Your task to perform on an android device: delete browsing data in the chrome app Image 0: 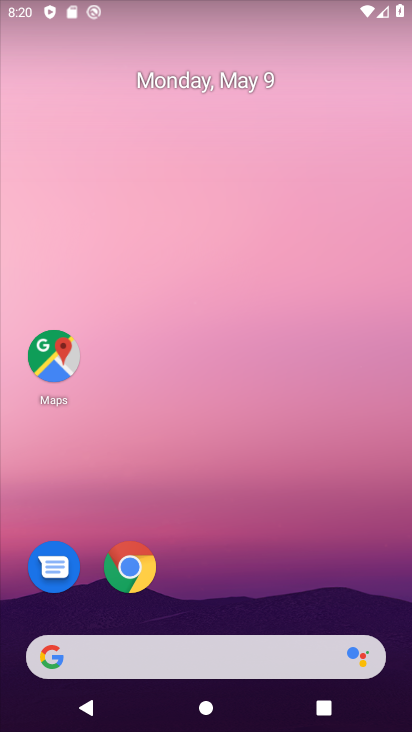
Step 0: drag from (201, 508) to (166, 65)
Your task to perform on an android device: delete browsing data in the chrome app Image 1: 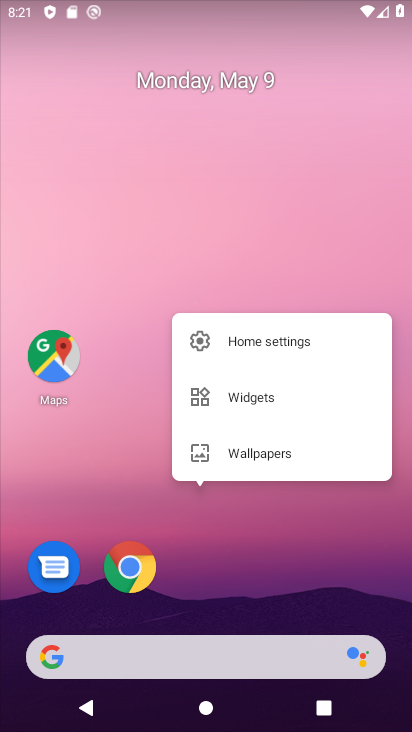
Step 1: drag from (207, 563) to (223, 82)
Your task to perform on an android device: delete browsing data in the chrome app Image 2: 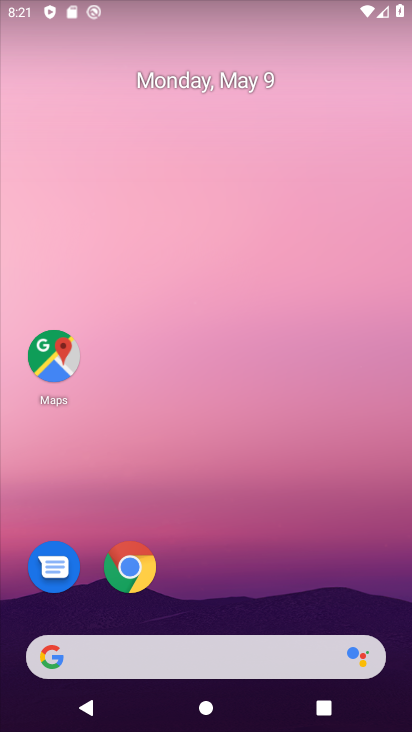
Step 2: drag from (252, 577) to (245, 119)
Your task to perform on an android device: delete browsing data in the chrome app Image 3: 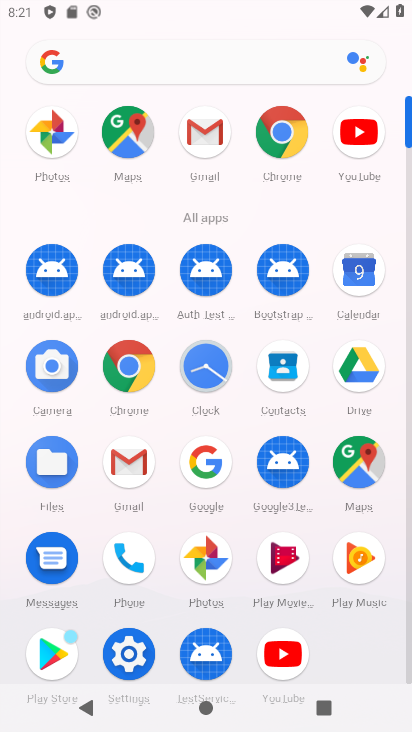
Step 3: click (123, 350)
Your task to perform on an android device: delete browsing data in the chrome app Image 4: 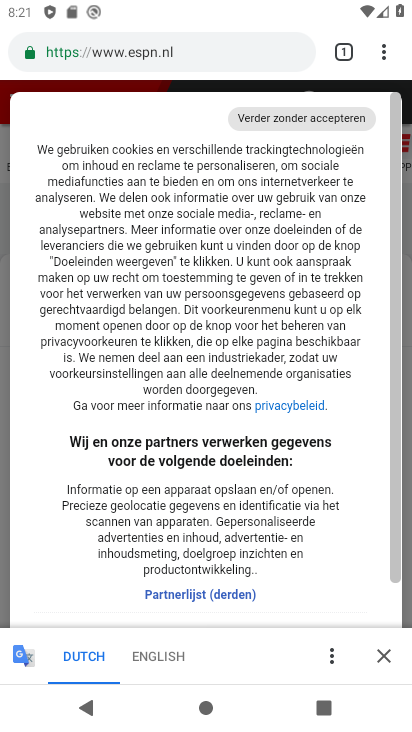
Step 4: click (384, 58)
Your task to perform on an android device: delete browsing data in the chrome app Image 5: 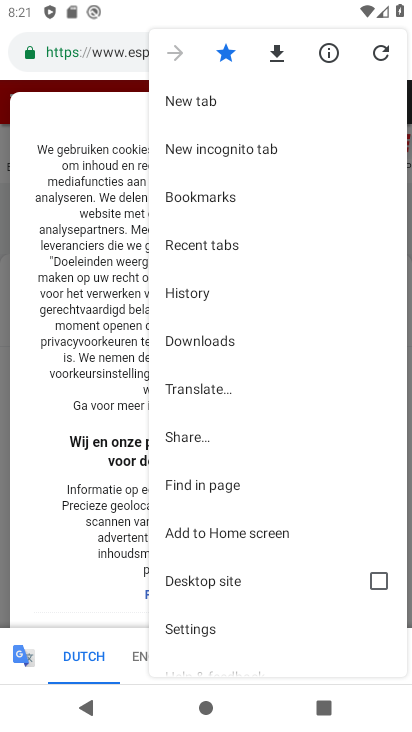
Step 5: click (215, 287)
Your task to perform on an android device: delete browsing data in the chrome app Image 6: 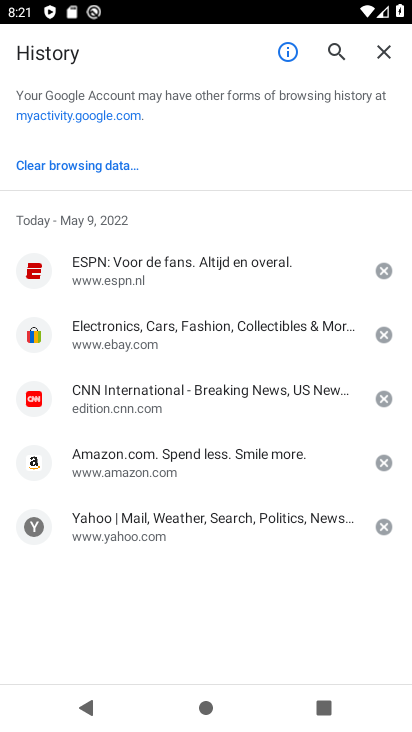
Step 6: click (48, 158)
Your task to perform on an android device: delete browsing data in the chrome app Image 7: 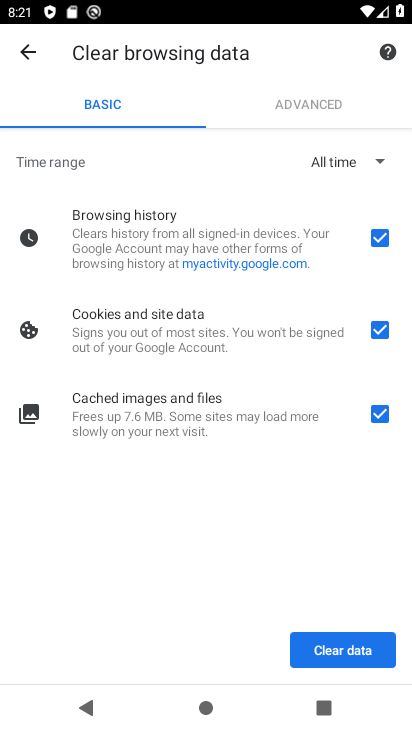
Step 7: click (341, 643)
Your task to perform on an android device: delete browsing data in the chrome app Image 8: 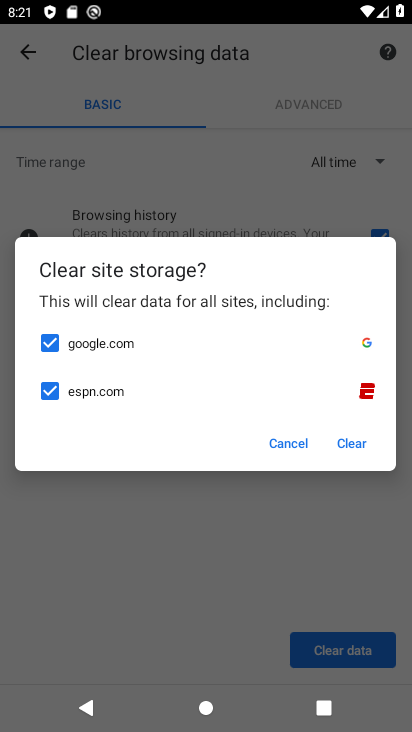
Step 8: click (353, 440)
Your task to perform on an android device: delete browsing data in the chrome app Image 9: 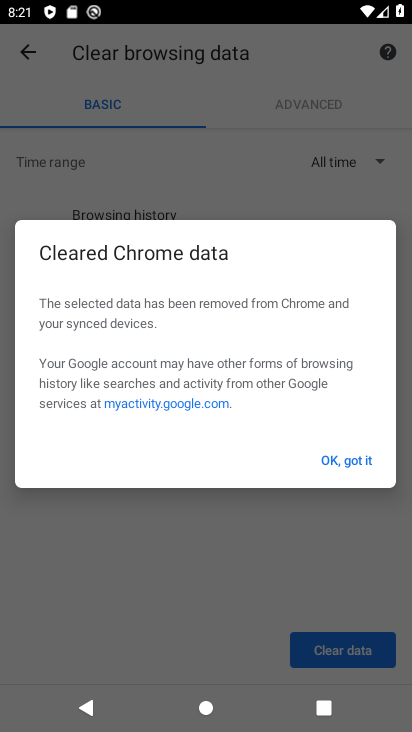
Step 9: click (332, 450)
Your task to perform on an android device: delete browsing data in the chrome app Image 10: 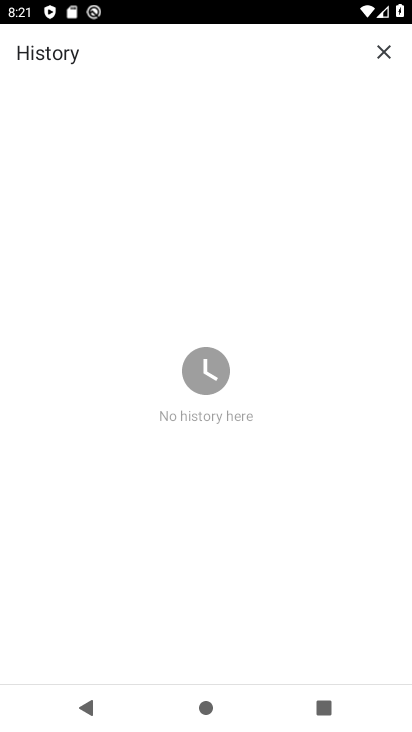
Step 10: task complete